Your task to perform on an android device: What's on my calendar today? Image 0: 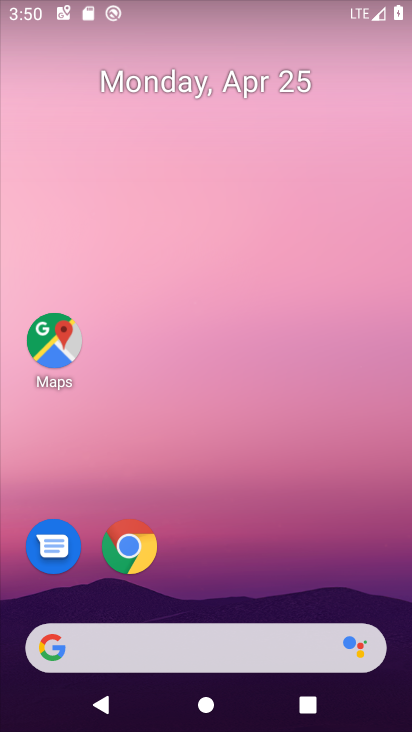
Step 0: drag from (283, 568) to (358, 97)
Your task to perform on an android device: What's on my calendar today? Image 1: 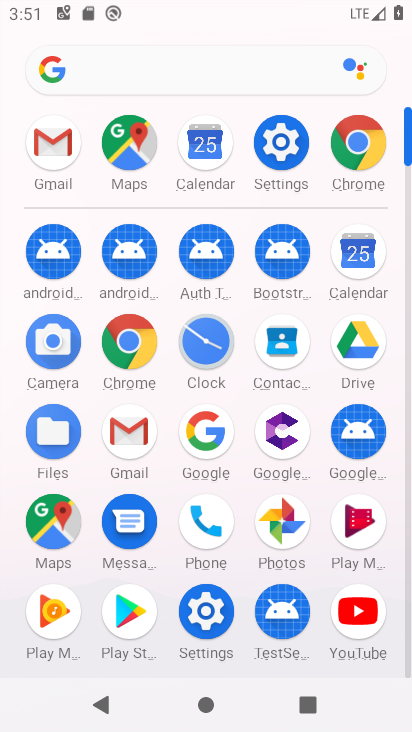
Step 1: click (354, 262)
Your task to perform on an android device: What's on my calendar today? Image 2: 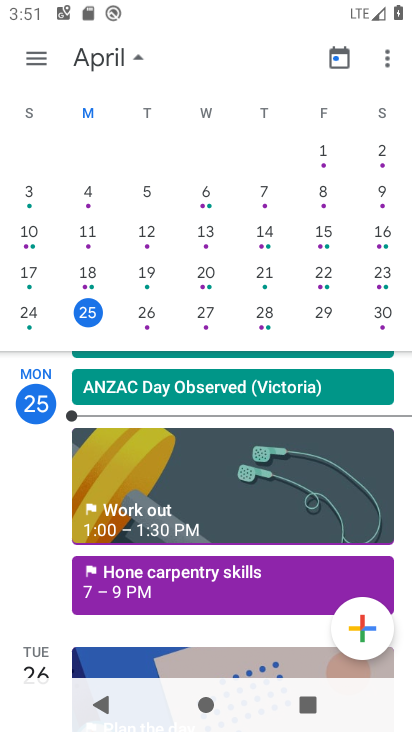
Step 2: click (99, 315)
Your task to perform on an android device: What's on my calendar today? Image 3: 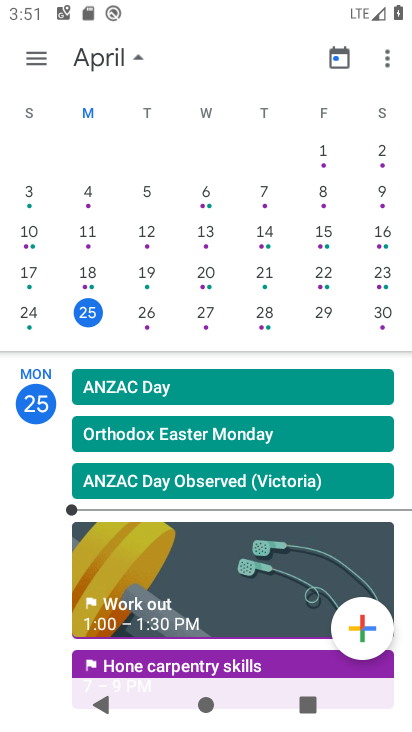
Step 3: task complete